Your task to perform on an android device: Go to display settings Image 0: 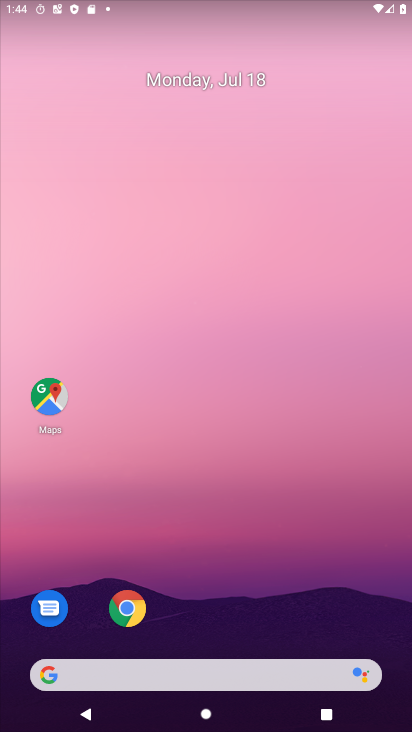
Step 0: click (131, 609)
Your task to perform on an android device: Go to display settings Image 1: 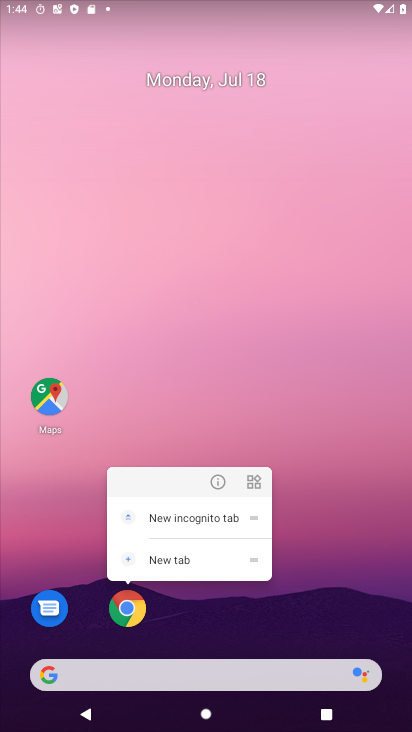
Step 1: click (338, 465)
Your task to perform on an android device: Go to display settings Image 2: 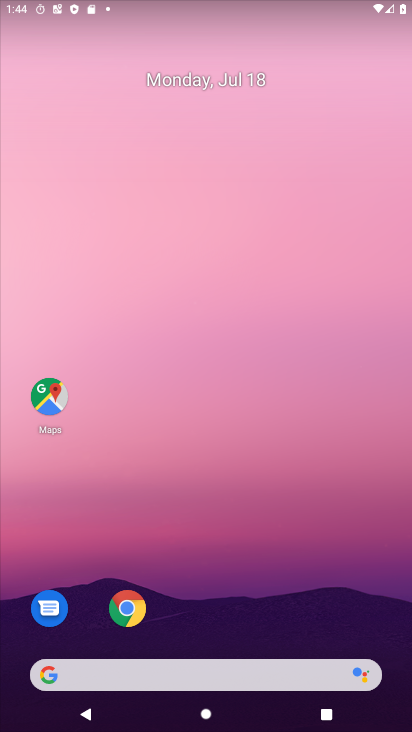
Step 2: drag from (256, 698) to (244, 267)
Your task to perform on an android device: Go to display settings Image 3: 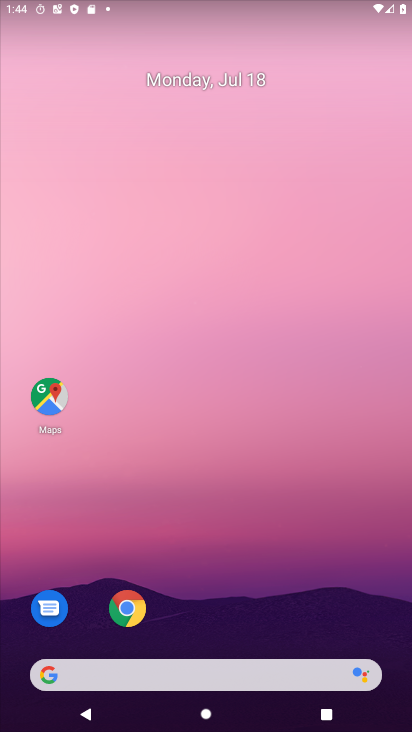
Step 3: drag from (240, 693) to (245, 222)
Your task to perform on an android device: Go to display settings Image 4: 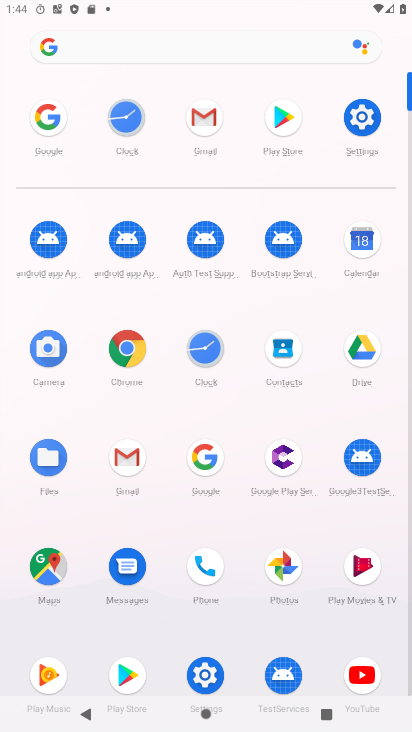
Step 4: click (366, 119)
Your task to perform on an android device: Go to display settings Image 5: 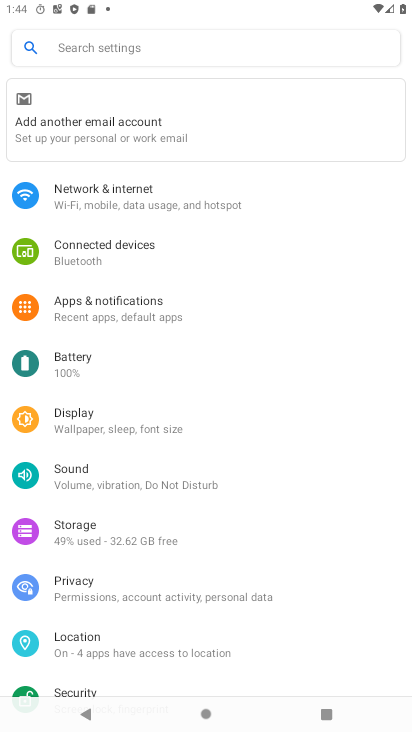
Step 5: click (60, 419)
Your task to perform on an android device: Go to display settings Image 6: 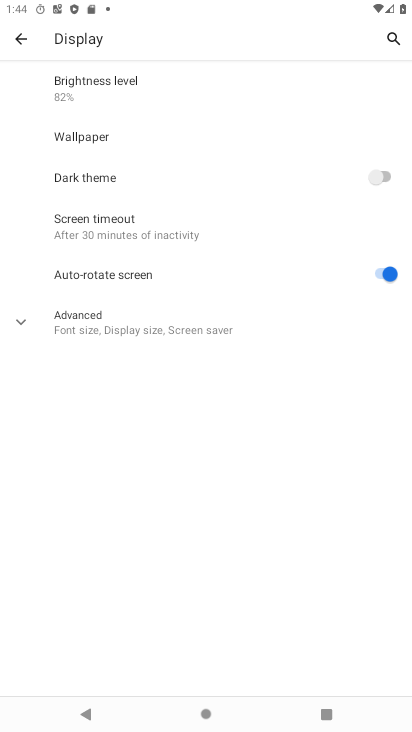
Step 6: task complete